Your task to perform on an android device: turn notification dots off Image 0: 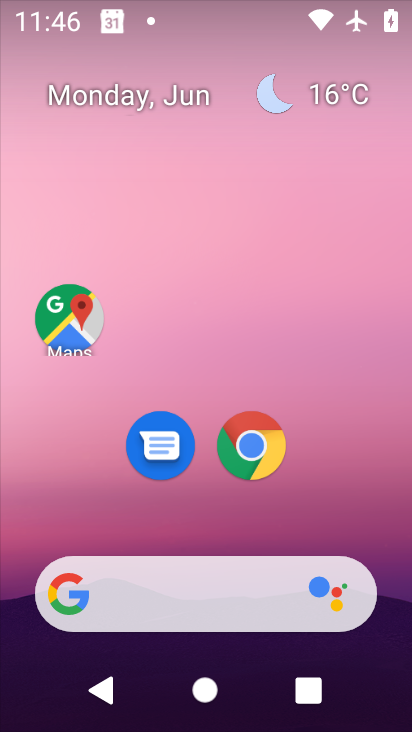
Step 0: drag from (338, 514) to (289, 108)
Your task to perform on an android device: turn notification dots off Image 1: 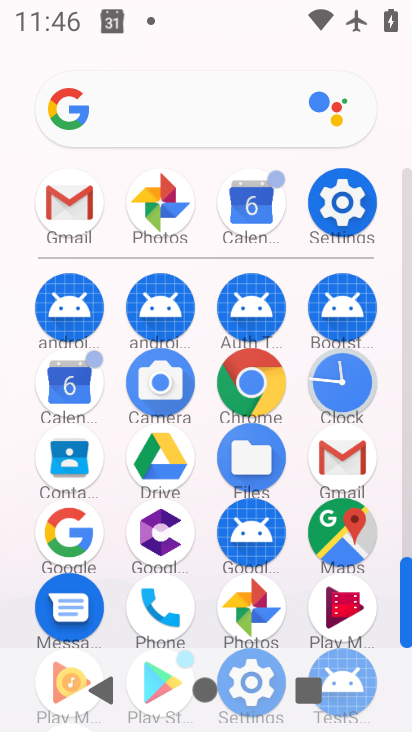
Step 1: click (336, 220)
Your task to perform on an android device: turn notification dots off Image 2: 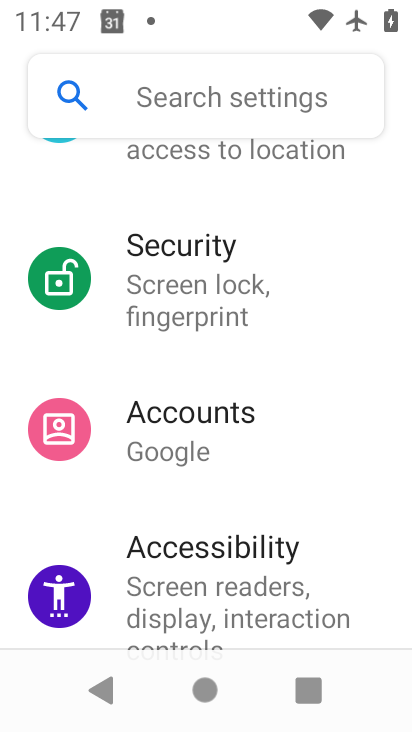
Step 2: drag from (369, 615) to (352, 698)
Your task to perform on an android device: turn notification dots off Image 3: 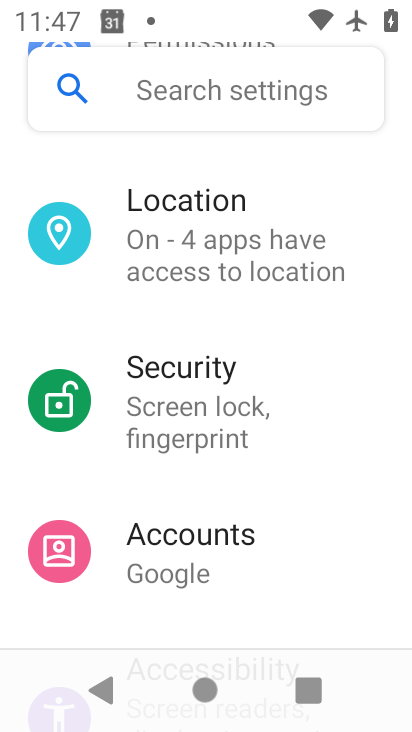
Step 3: drag from (304, 166) to (325, 724)
Your task to perform on an android device: turn notification dots off Image 4: 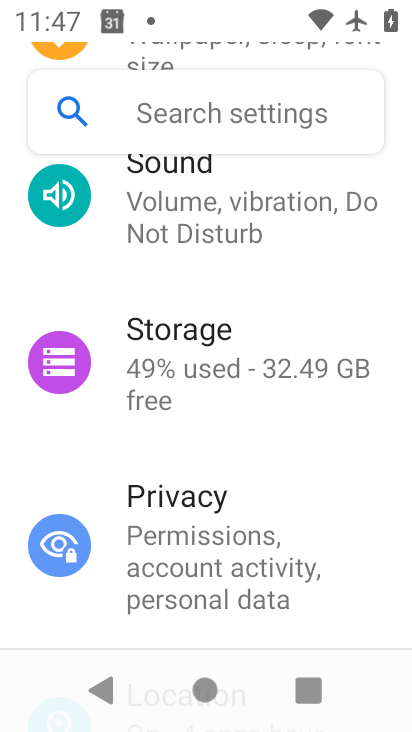
Step 4: drag from (66, 269) to (119, 724)
Your task to perform on an android device: turn notification dots off Image 5: 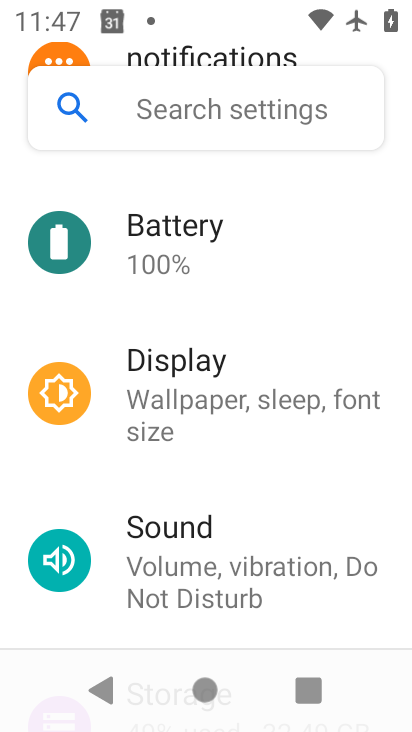
Step 5: drag from (316, 192) to (320, 531)
Your task to perform on an android device: turn notification dots off Image 6: 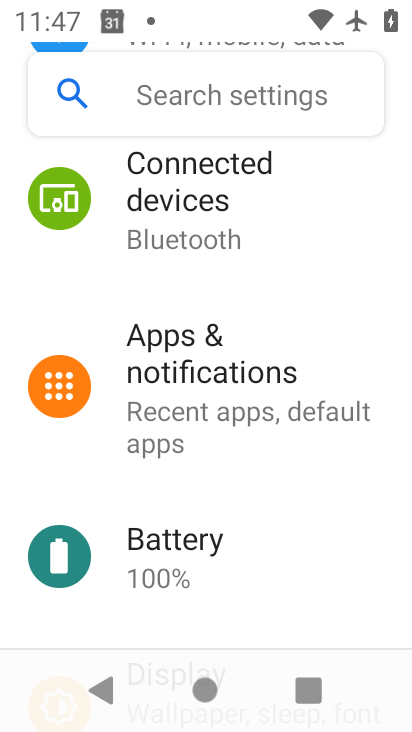
Step 6: click (234, 392)
Your task to perform on an android device: turn notification dots off Image 7: 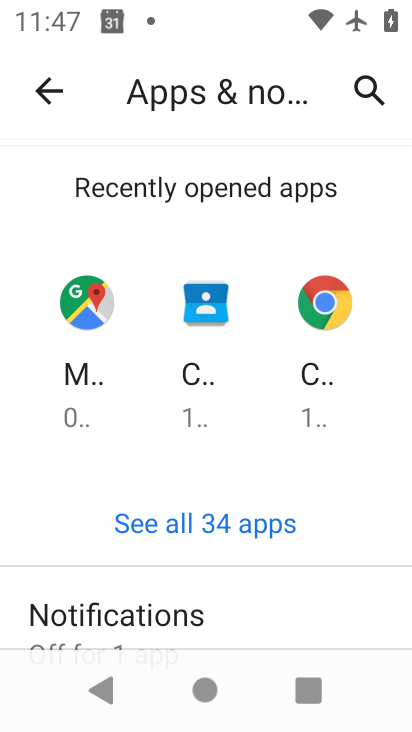
Step 7: drag from (336, 573) to (294, 157)
Your task to perform on an android device: turn notification dots off Image 8: 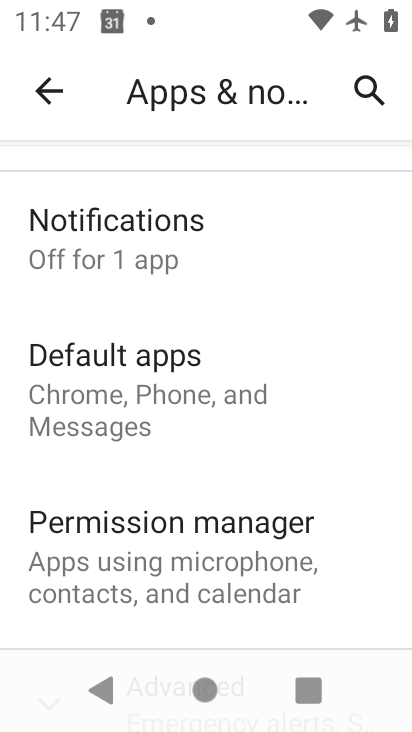
Step 8: click (206, 237)
Your task to perform on an android device: turn notification dots off Image 9: 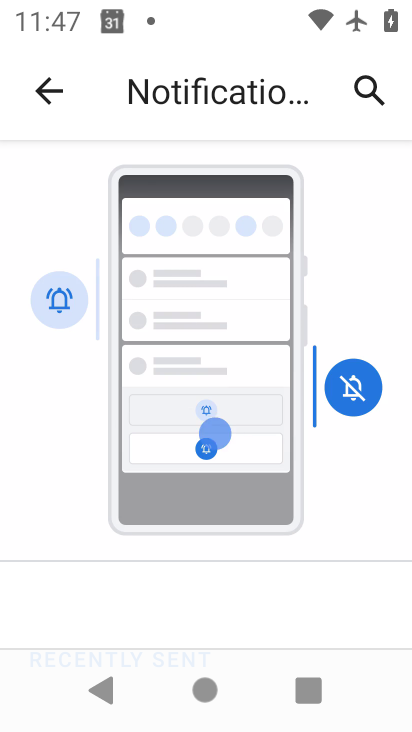
Step 9: drag from (355, 597) to (304, 18)
Your task to perform on an android device: turn notification dots off Image 10: 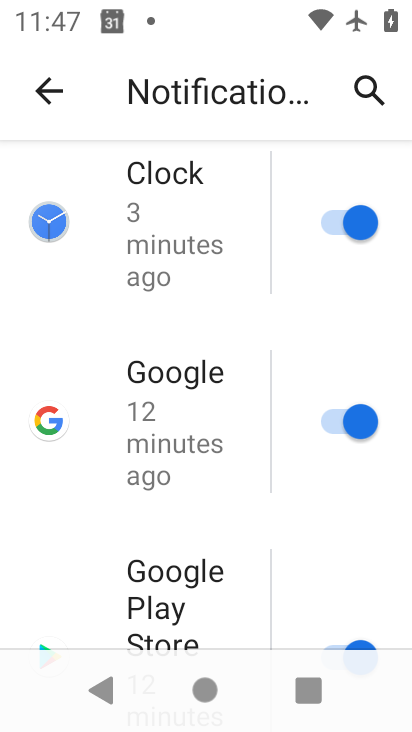
Step 10: drag from (271, 619) to (296, 47)
Your task to perform on an android device: turn notification dots off Image 11: 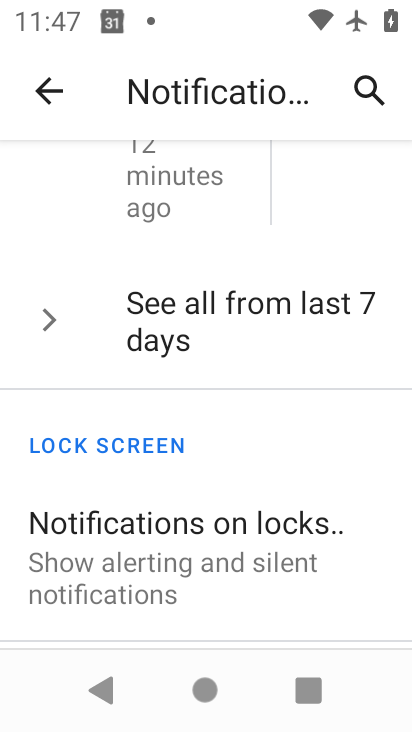
Step 11: drag from (264, 619) to (239, 257)
Your task to perform on an android device: turn notification dots off Image 12: 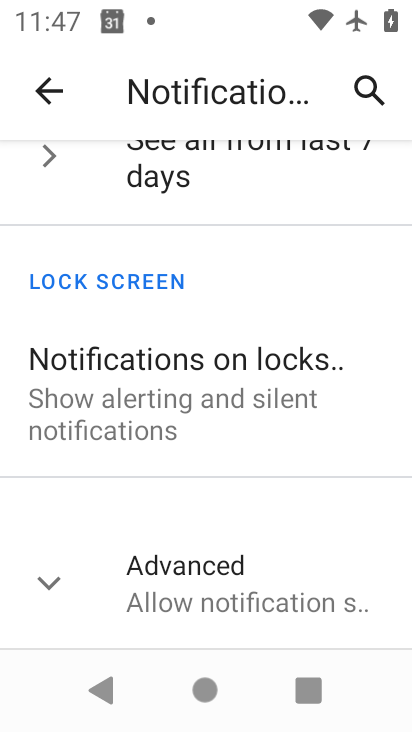
Step 12: click (47, 580)
Your task to perform on an android device: turn notification dots off Image 13: 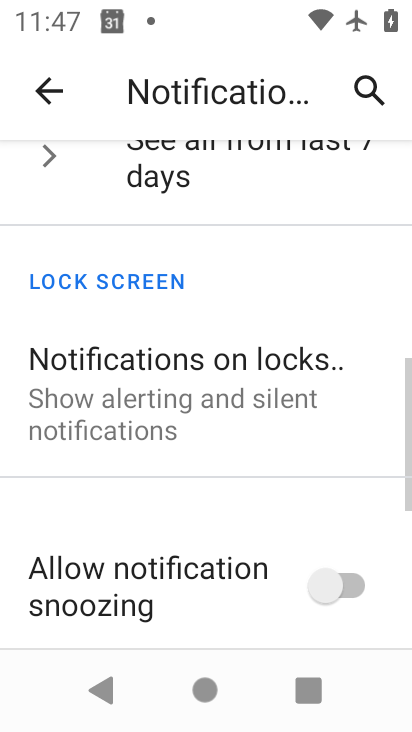
Step 13: drag from (244, 641) to (333, 4)
Your task to perform on an android device: turn notification dots off Image 14: 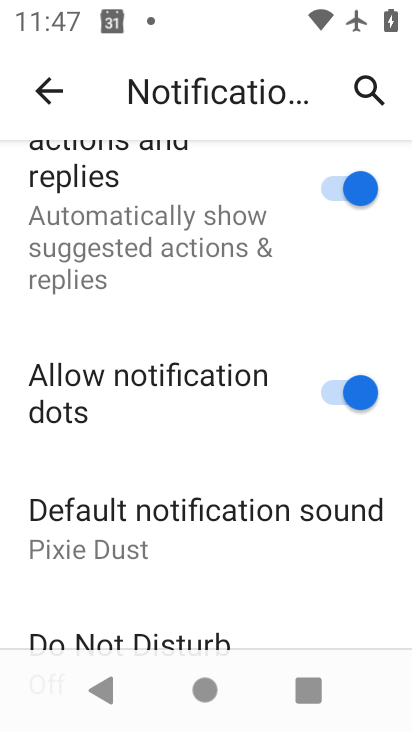
Step 14: click (350, 386)
Your task to perform on an android device: turn notification dots off Image 15: 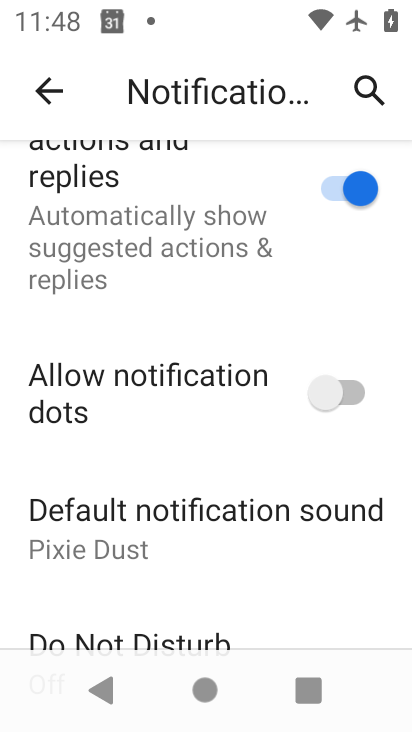
Step 15: task complete